Your task to perform on an android device: add a contact in the contacts app Image 0: 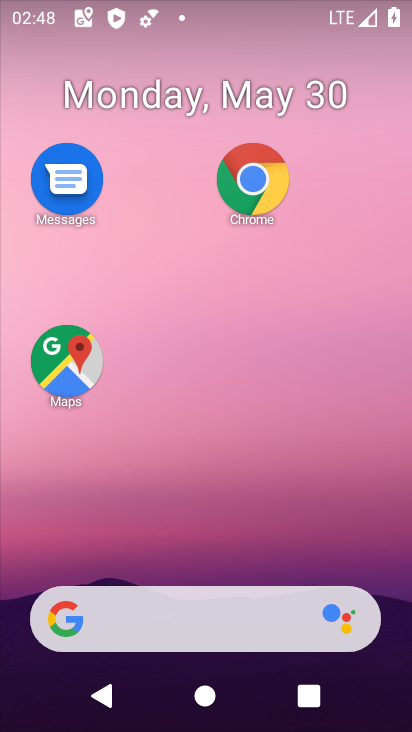
Step 0: drag from (229, 527) to (222, 96)
Your task to perform on an android device: add a contact in the contacts app Image 1: 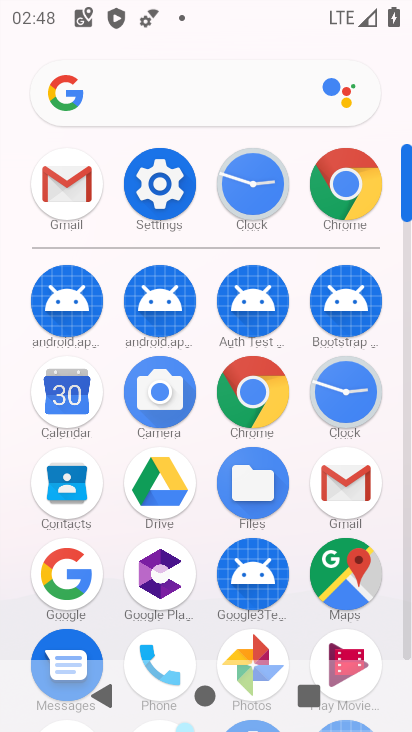
Step 1: click (64, 485)
Your task to perform on an android device: add a contact in the contacts app Image 2: 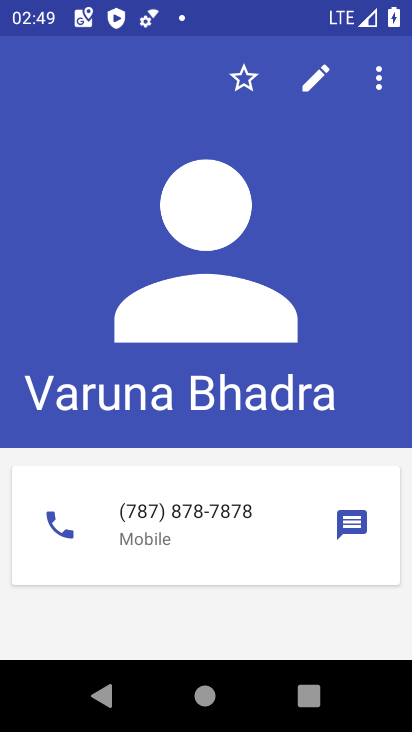
Step 2: press back button
Your task to perform on an android device: add a contact in the contacts app Image 3: 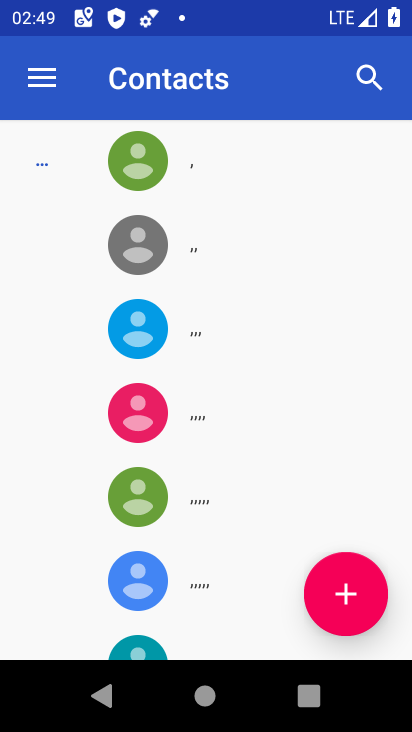
Step 3: click (352, 601)
Your task to perform on an android device: add a contact in the contacts app Image 4: 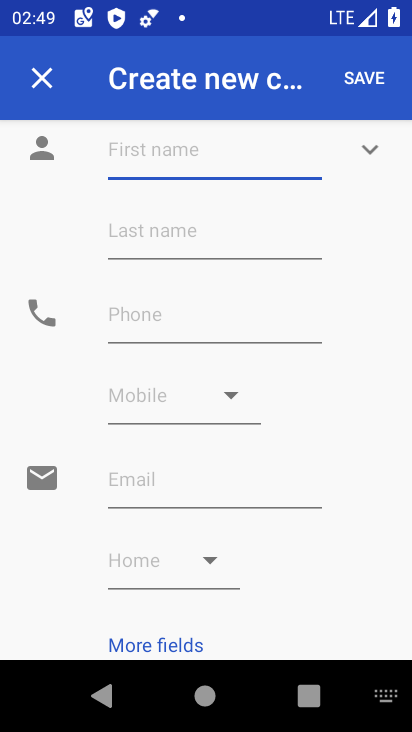
Step 4: type "Salman"
Your task to perform on an android device: add a contact in the contacts app Image 5: 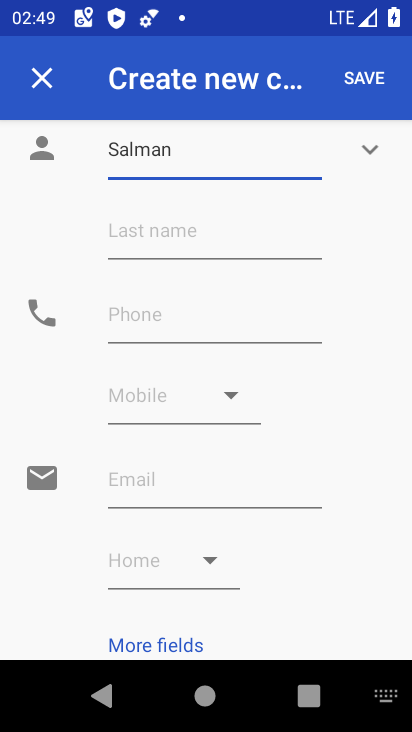
Step 5: click (163, 242)
Your task to perform on an android device: add a contact in the contacts app Image 6: 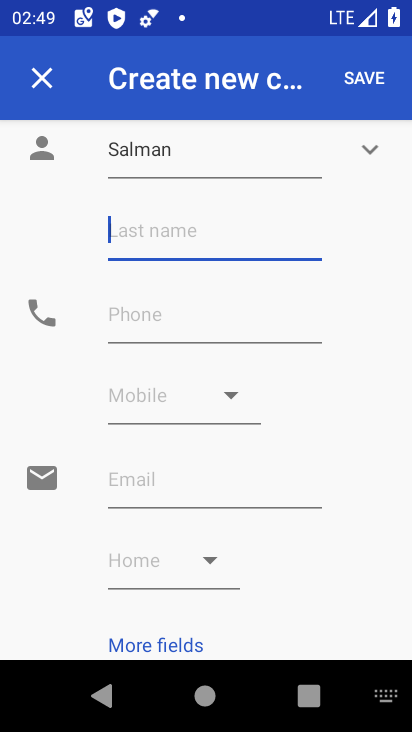
Step 6: type "Khan"
Your task to perform on an android device: add a contact in the contacts app Image 7: 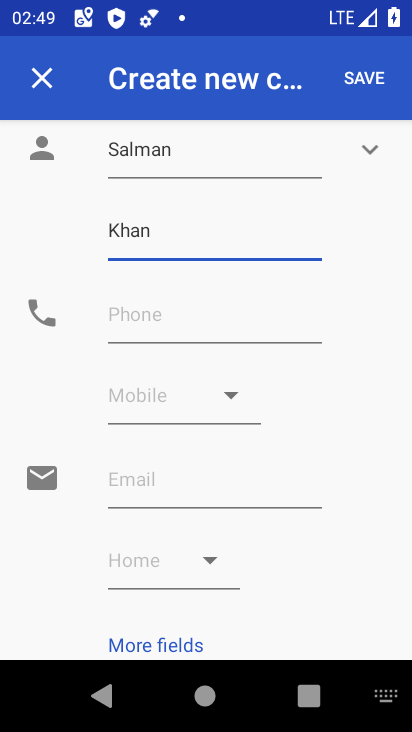
Step 7: click (269, 320)
Your task to perform on an android device: add a contact in the contacts app Image 8: 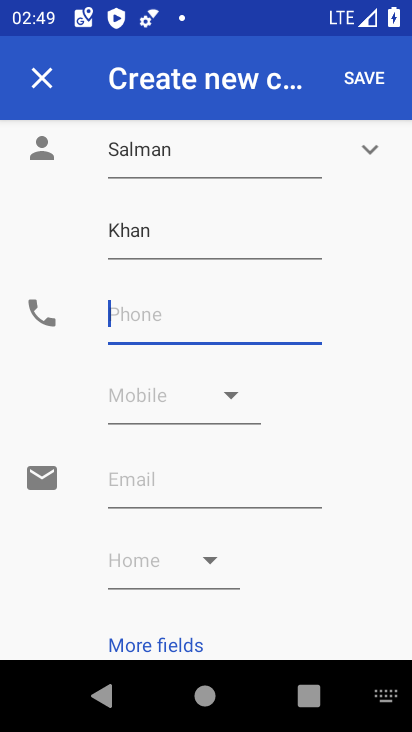
Step 8: type "9009900990"
Your task to perform on an android device: add a contact in the contacts app Image 9: 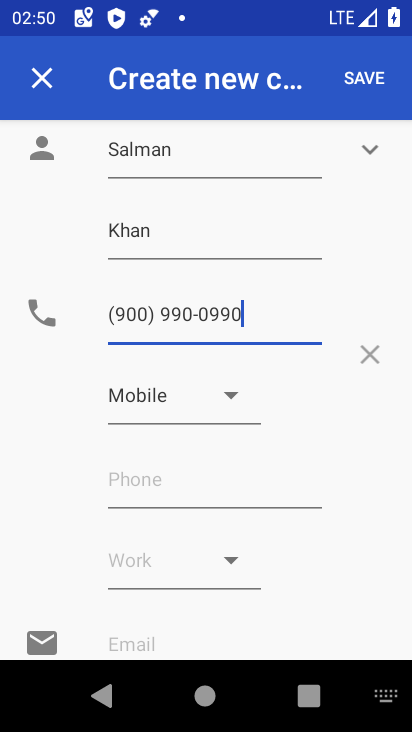
Step 9: task complete